Your task to perform on an android device: Open location settings Image 0: 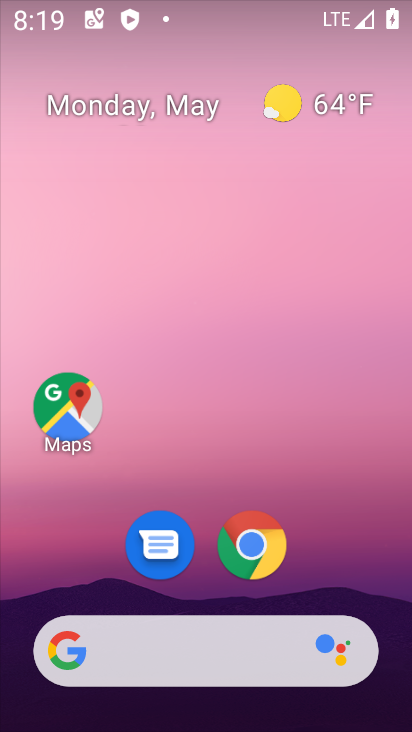
Step 0: drag from (232, 653) to (302, 125)
Your task to perform on an android device: Open location settings Image 1: 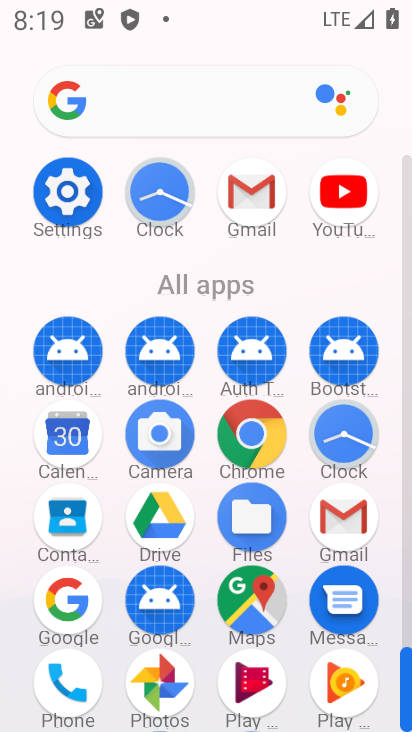
Step 1: click (65, 188)
Your task to perform on an android device: Open location settings Image 2: 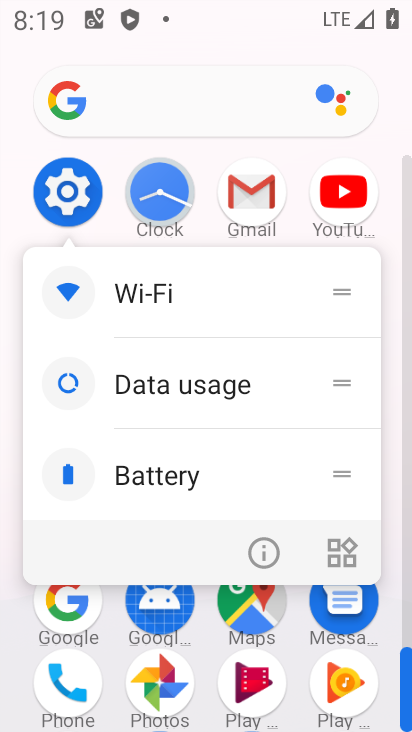
Step 2: click (84, 197)
Your task to perform on an android device: Open location settings Image 3: 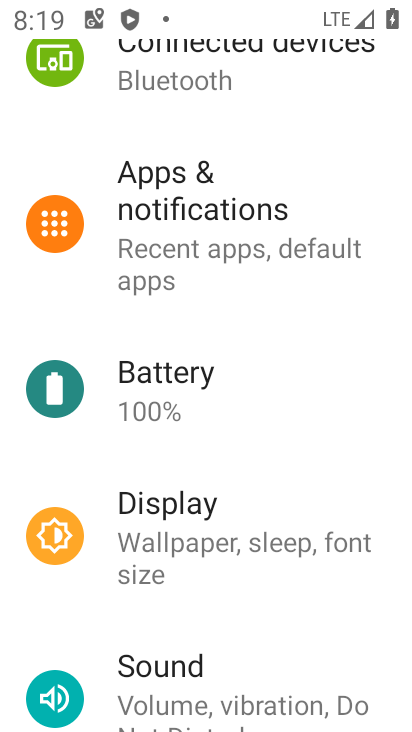
Step 3: drag from (172, 569) to (5, 16)
Your task to perform on an android device: Open location settings Image 4: 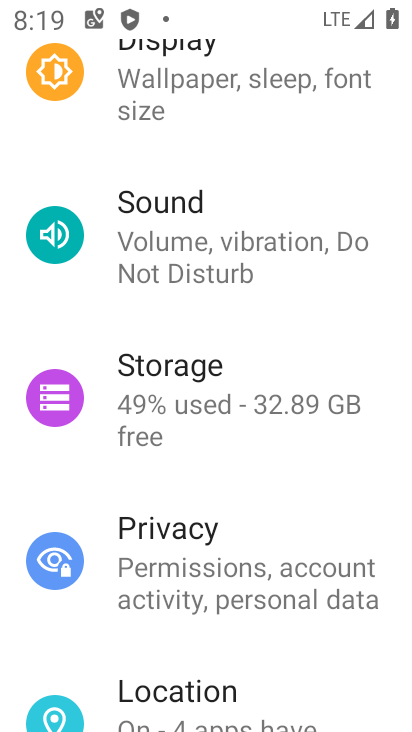
Step 4: click (194, 698)
Your task to perform on an android device: Open location settings Image 5: 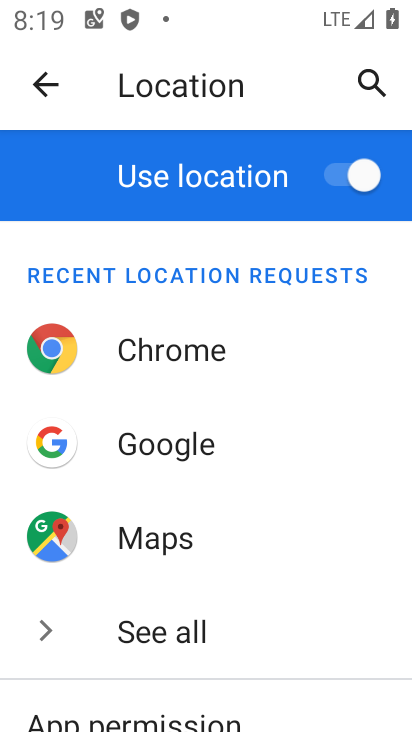
Step 5: task complete